Your task to perform on an android device: change your default location settings in chrome Image 0: 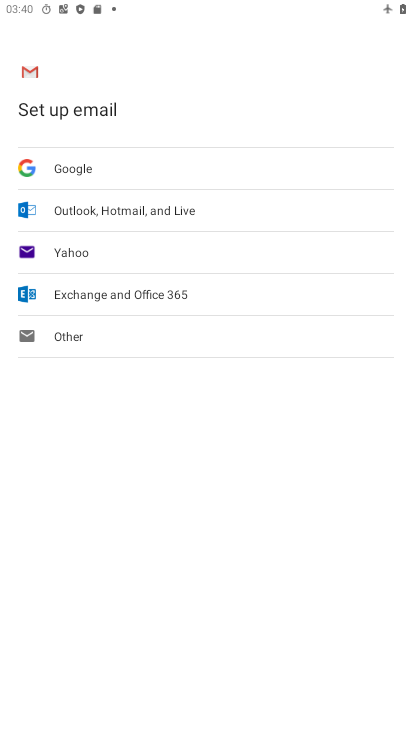
Step 0: press home button
Your task to perform on an android device: change your default location settings in chrome Image 1: 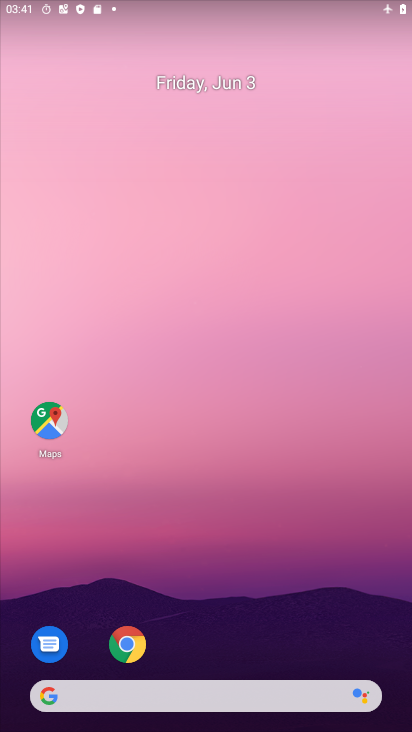
Step 1: click (130, 637)
Your task to perform on an android device: change your default location settings in chrome Image 2: 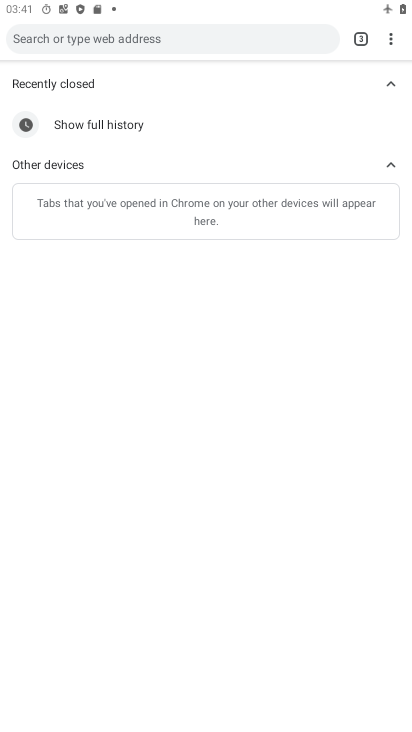
Step 2: click (392, 43)
Your task to perform on an android device: change your default location settings in chrome Image 3: 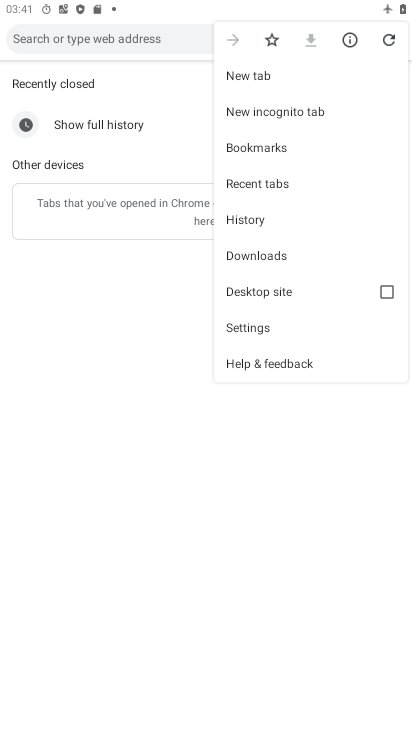
Step 3: click (250, 319)
Your task to perform on an android device: change your default location settings in chrome Image 4: 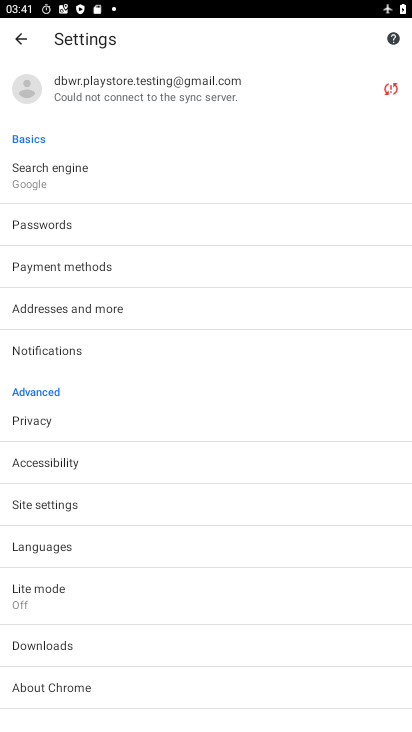
Step 4: click (76, 502)
Your task to perform on an android device: change your default location settings in chrome Image 5: 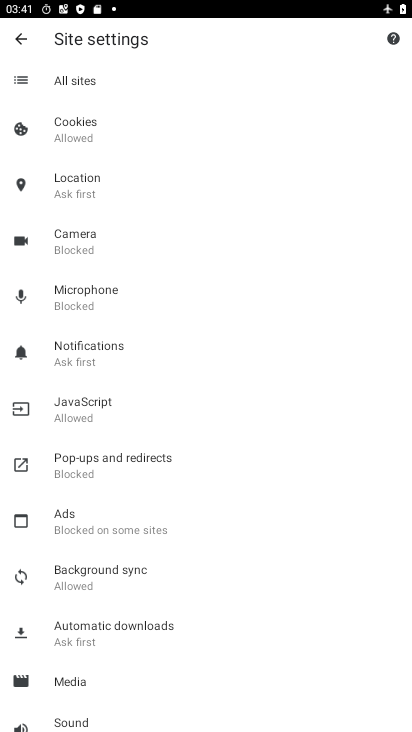
Step 5: click (85, 190)
Your task to perform on an android device: change your default location settings in chrome Image 6: 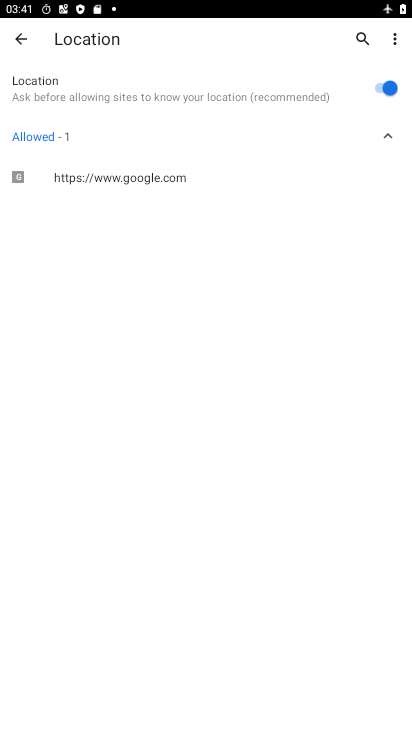
Step 6: click (376, 87)
Your task to perform on an android device: change your default location settings in chrome Image 7: 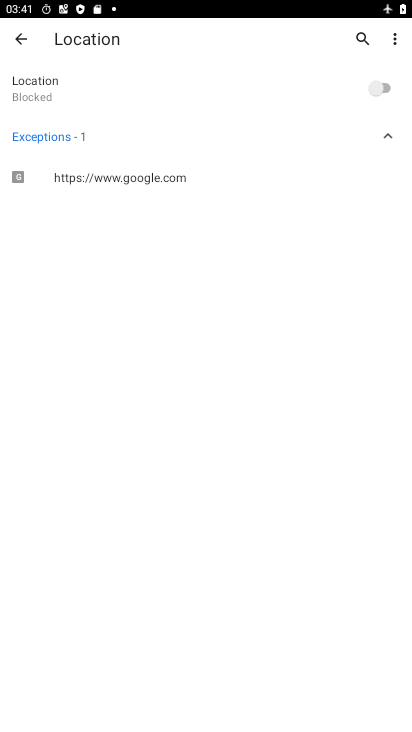
Step 7: task complete